Your task to perform on an android device: turn off picture-in-picture Image 0: 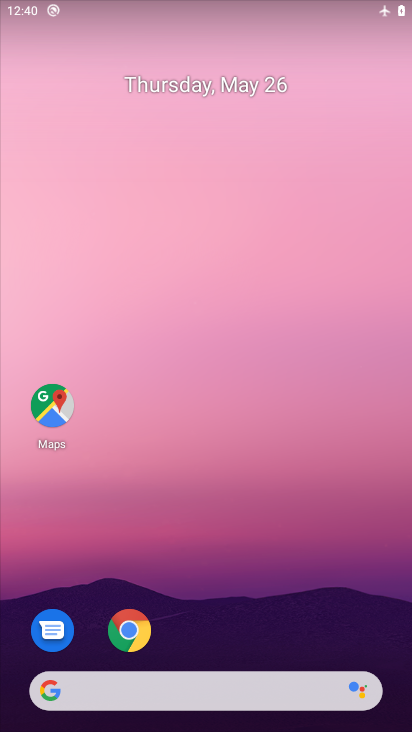
Step 0: click (128, 627)
Your task to perform on an android device: turn off picture-in-picture Image 1: 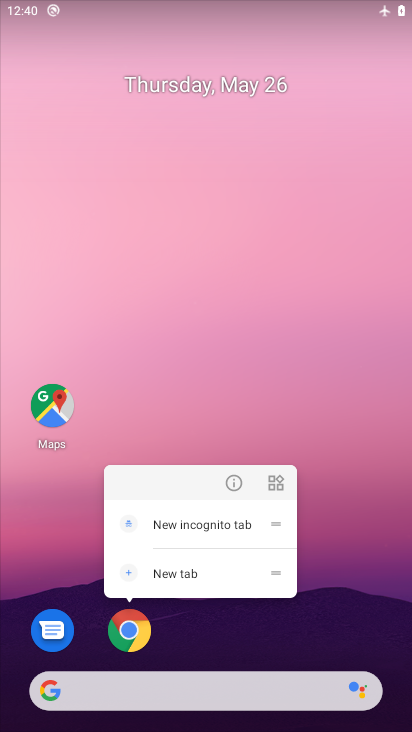
Step 1: click (231, 481)
Your task to perform on an android device: turn off picture-in-picture Image 2: 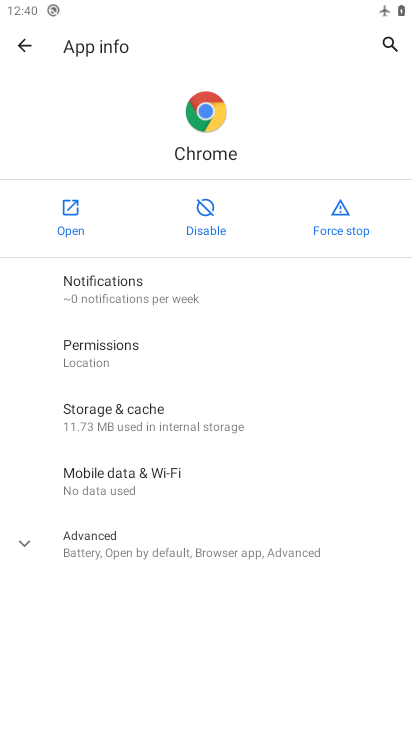
Step 2: click (26, 539)
Your task to perform on an android device: turn off picture-in-picture Image 3: 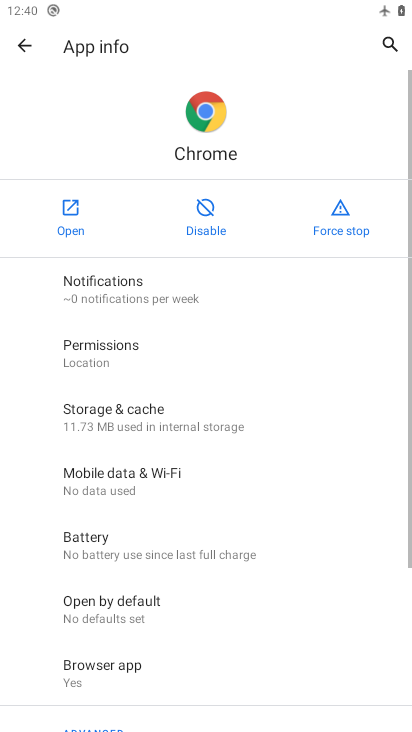
Step 3: drag from (116, 626) to (122, 147)
Your task to perform on an android device: turn off picture-in-picture Image 4: 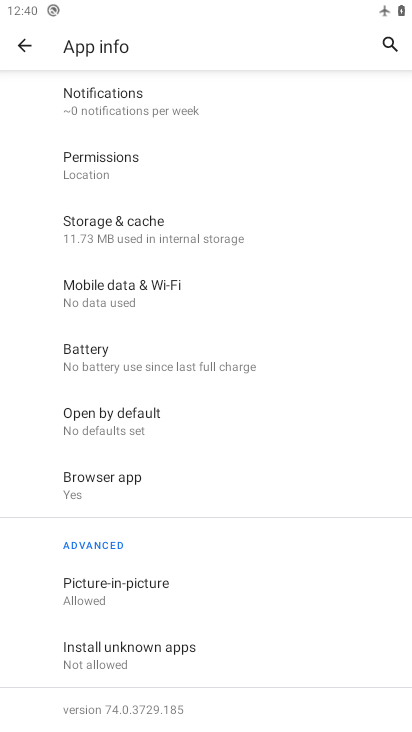
Step 4: click (107, 590)
Your task to perform on an android device: turn off picture-in-picture Image 5: 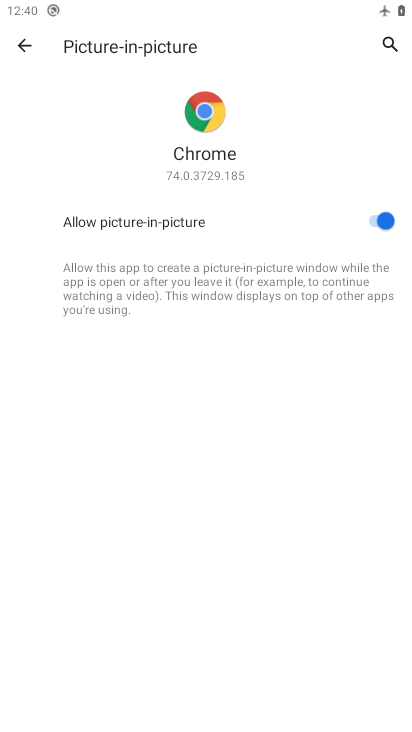
Step 5: click (380, 215)
Your task to perform on an android device: turn off picture-in-picture Image 6: 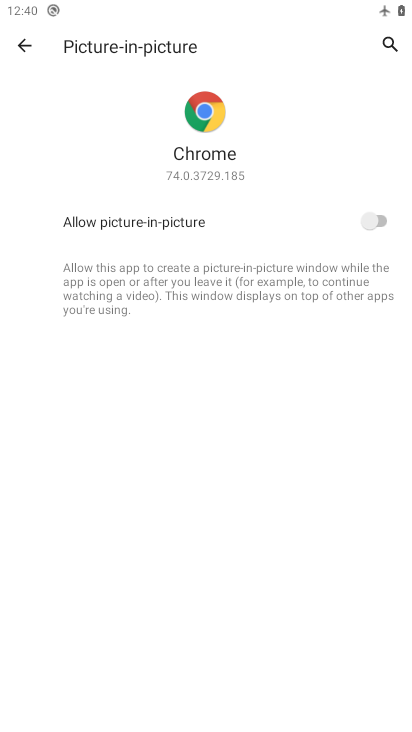
Step 6: task complete